Your task to perform on an android device: set default search engine in the chrome app Image 0: 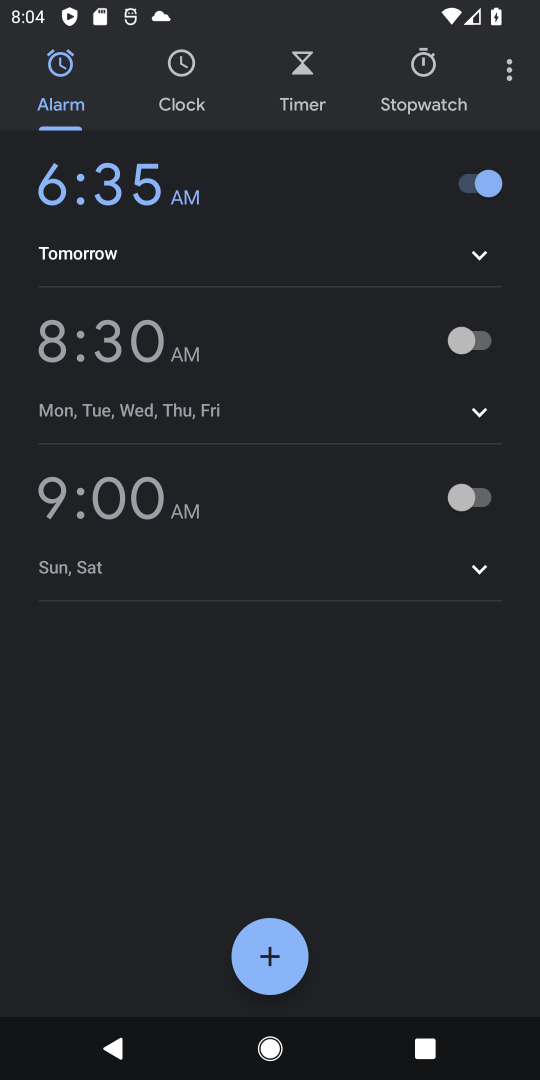
Step 0: press home button
Your task to perform on an android device: set default search engine in the chrome app Image 1: 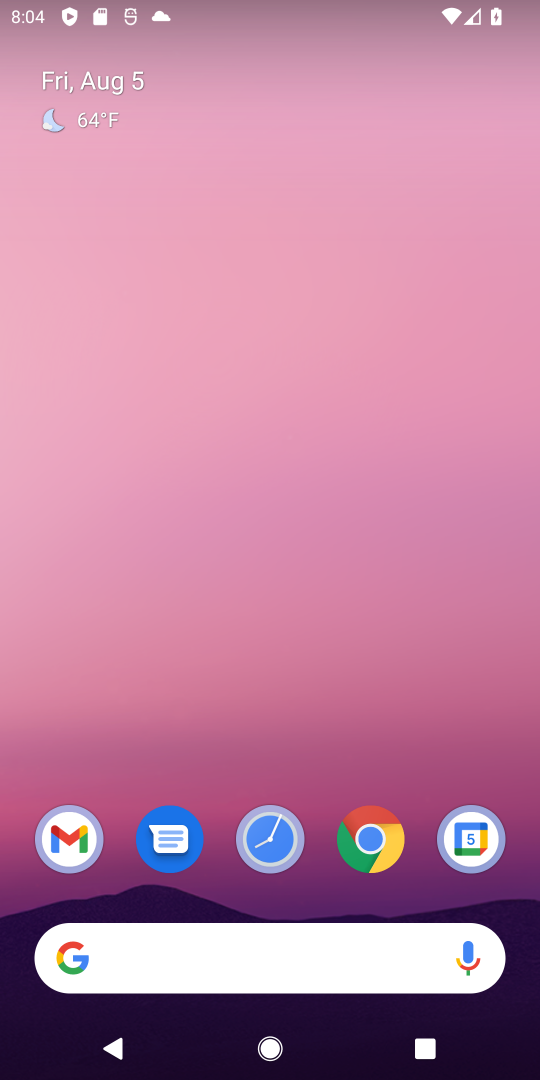
Step 1: click (390, 879)
Your task to perform on an android device: set default search engine in the chrome app Image 2: 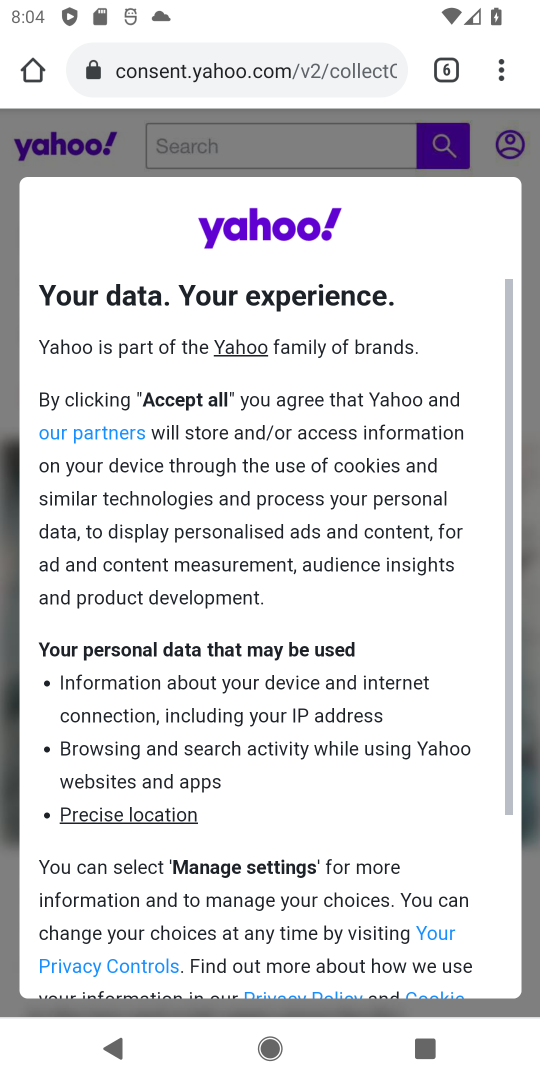
Step 2: click (502, 73)
Your task to perform on an android device: set default search engine in the chrome app Image 3: 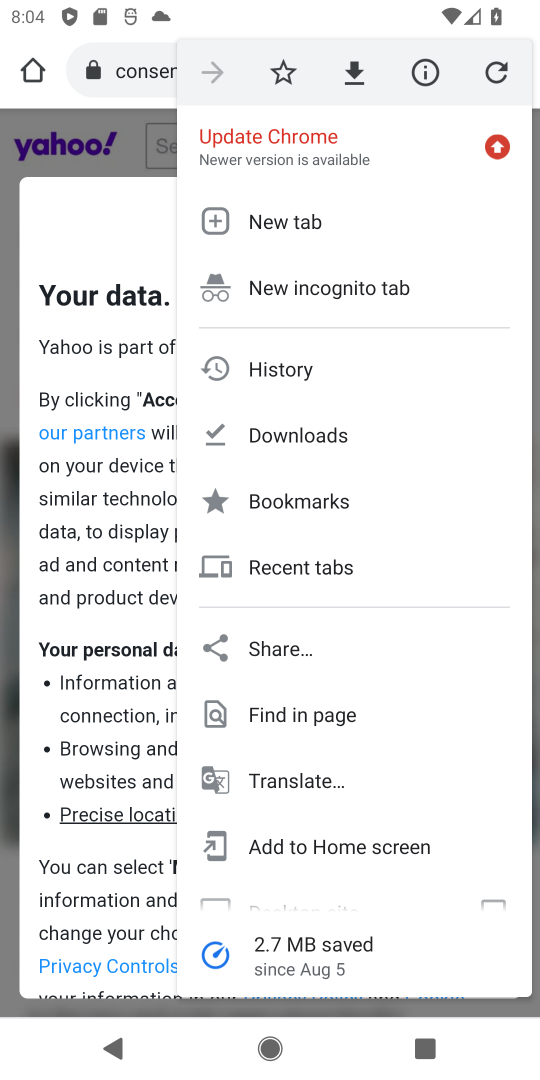
Step 3: drag from (324, 848) to (338, 353)
Your task to perform on an android device: set default search engine in the chrome app Image 4: 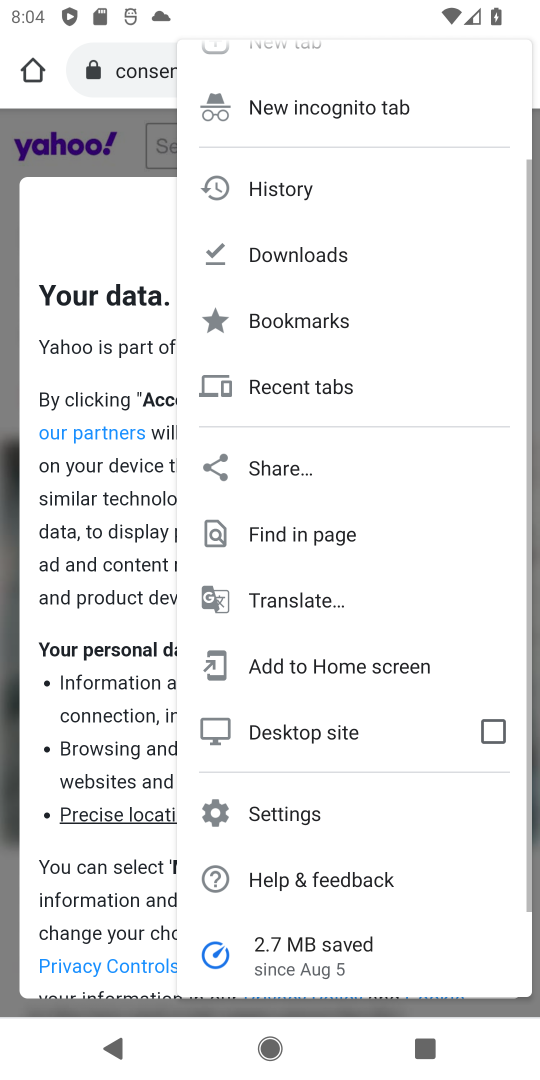
Step 4: click (269, 812)
Your task to perform on an android device: set default search engine in the chrome app Image 5: 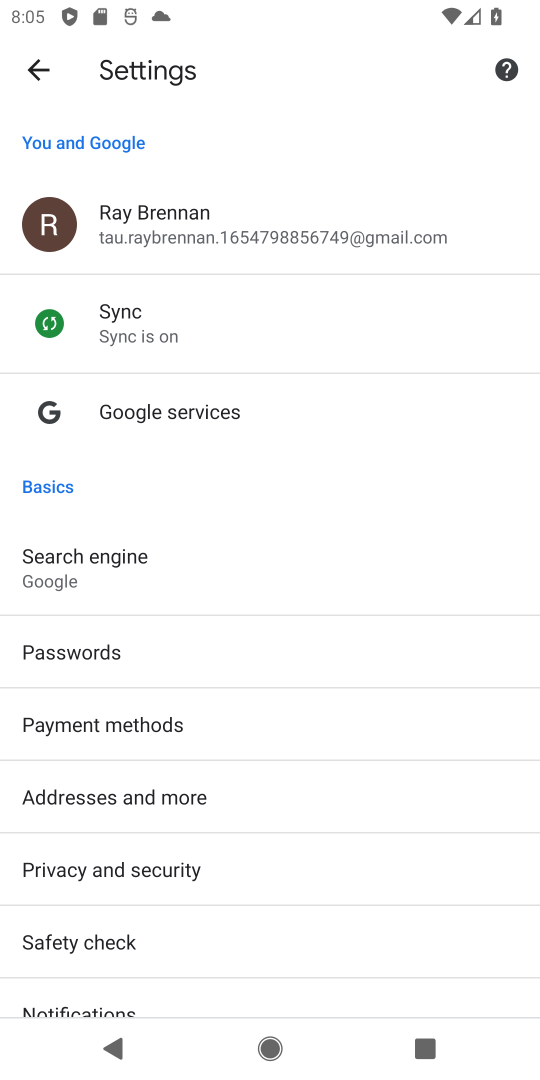
Step 5: click (81, 564)
Your task to perform on an android device: set default search engine in the chrome app Image 6: 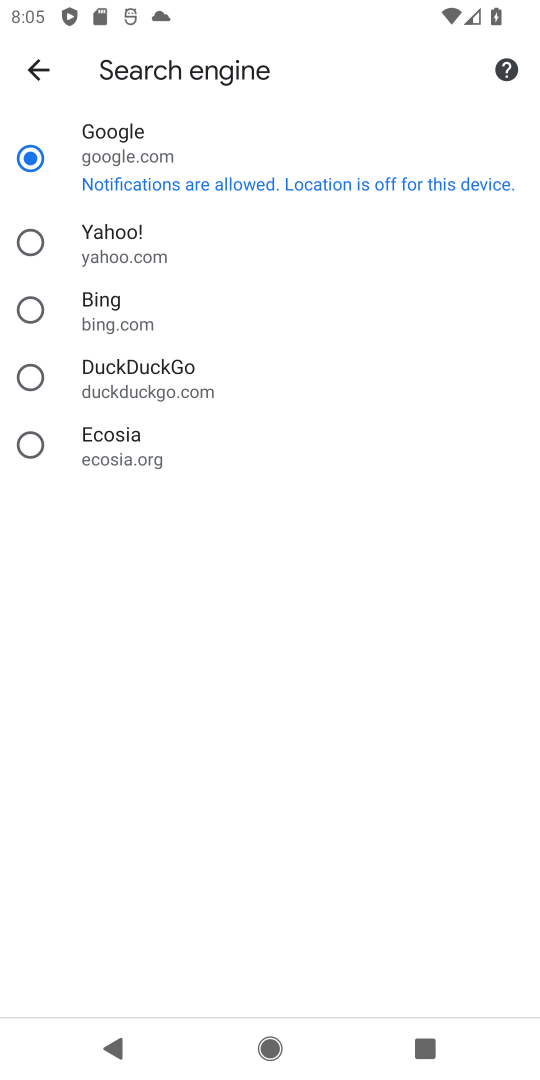
Step 6: click (40, 240)
Your task to perform on an android device: set default search engine in the chrome app Image 7: 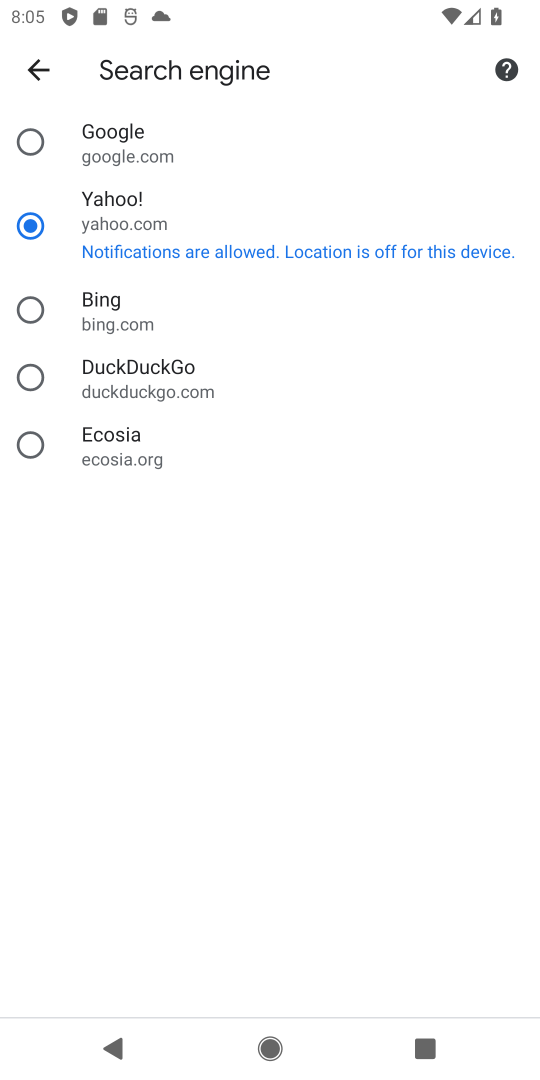
Step 7: task complete